Your task to perform on an android device: What's the news in Argentina? Image 0: 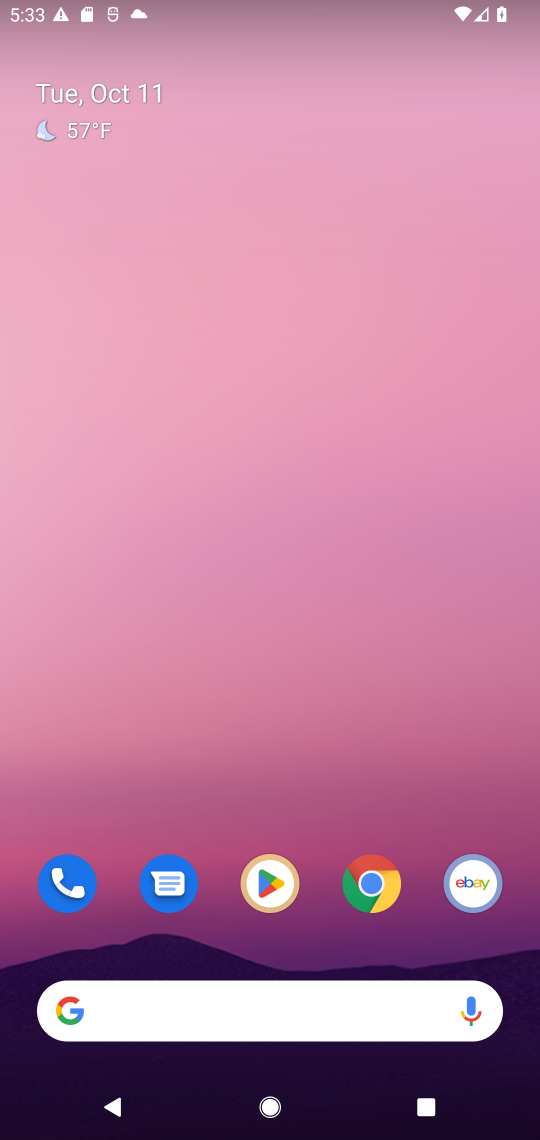
Step 0: drag from (329, 876) to (345, 75)
Your task to perform on an android device: What's the news in Argentina? Image 1: 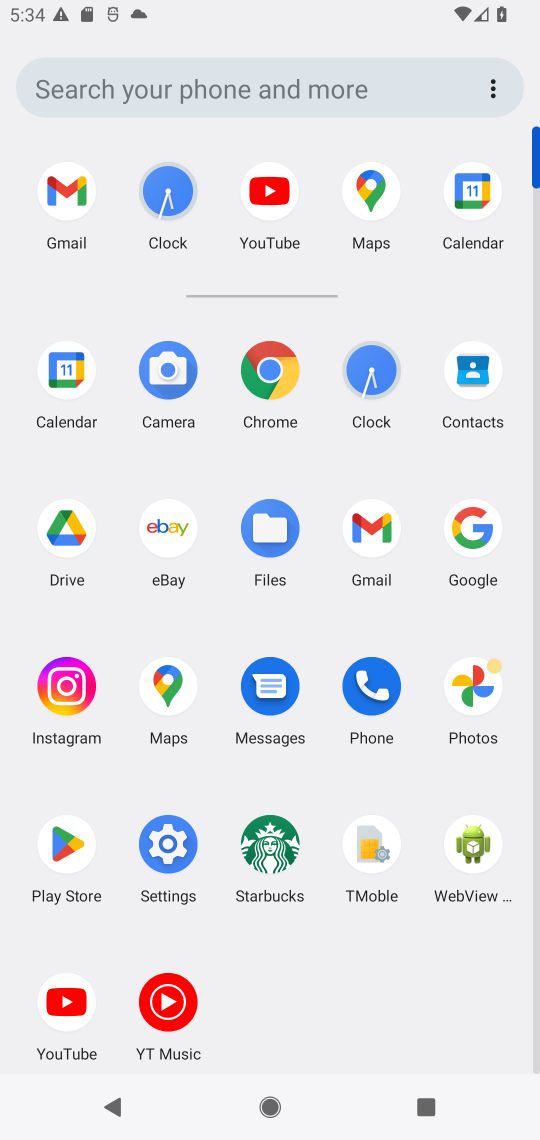
Step 1: click (269, 366)
Your task to perform on an android device: What's the news in Argentina? Image 2: 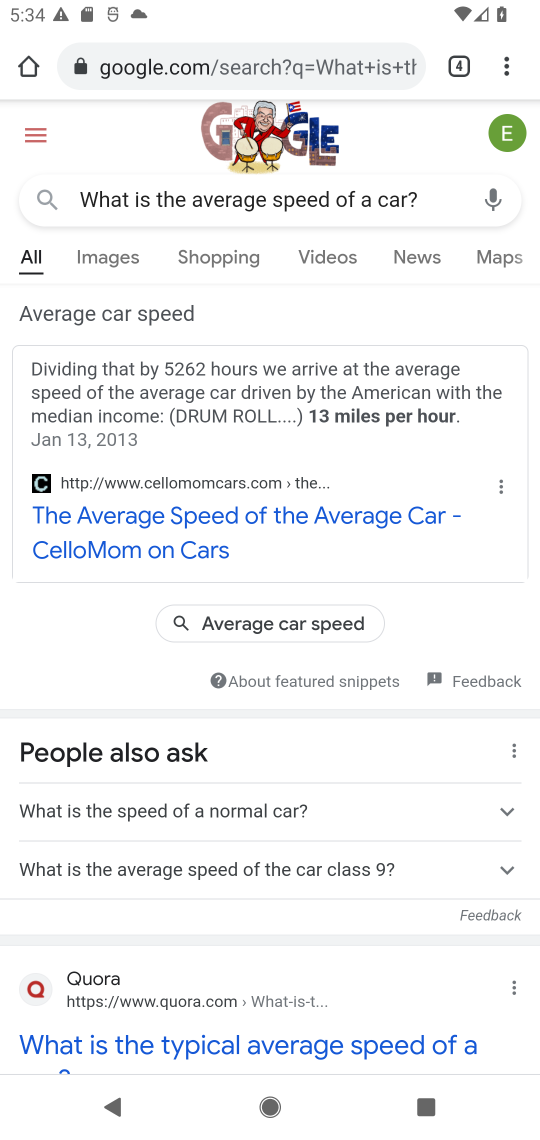
Step 2: click (335, 56)
Your task to perform on an android device: What's the news in Argentina? Image 3: 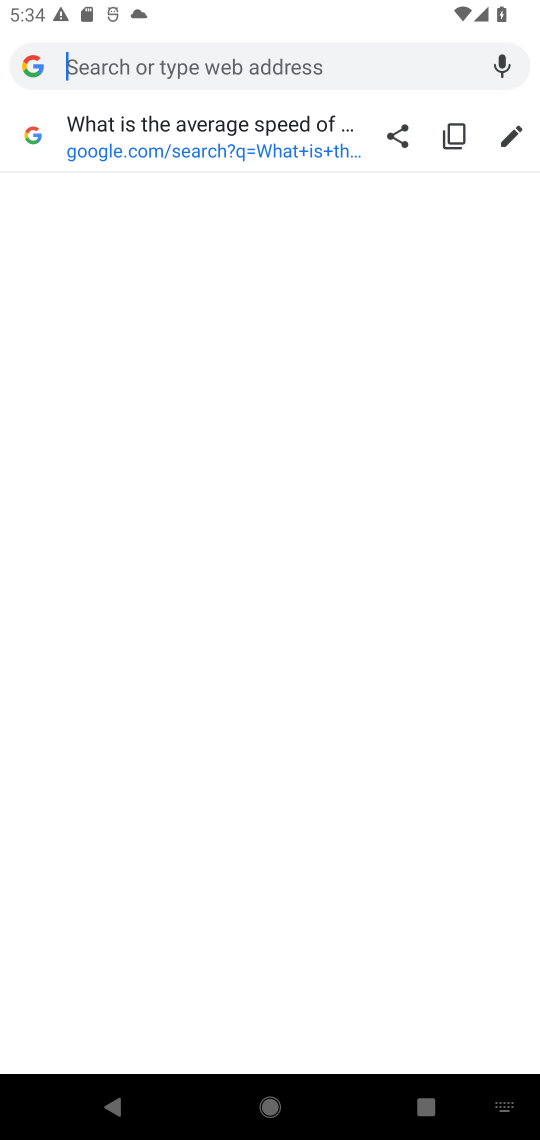
Step 3: type "What's the news in Argentina?"
Your task to perform on an android device: What's the news in Argentina? Image 4: 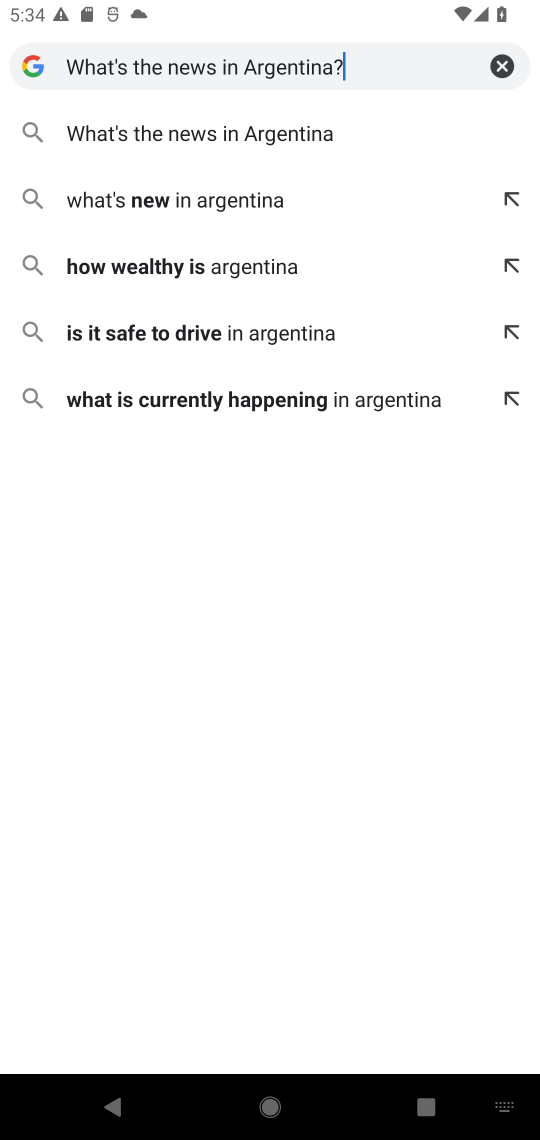
Step 4: press enter
Your task to perform on an android device: What's the news in Argentina? Image 5: 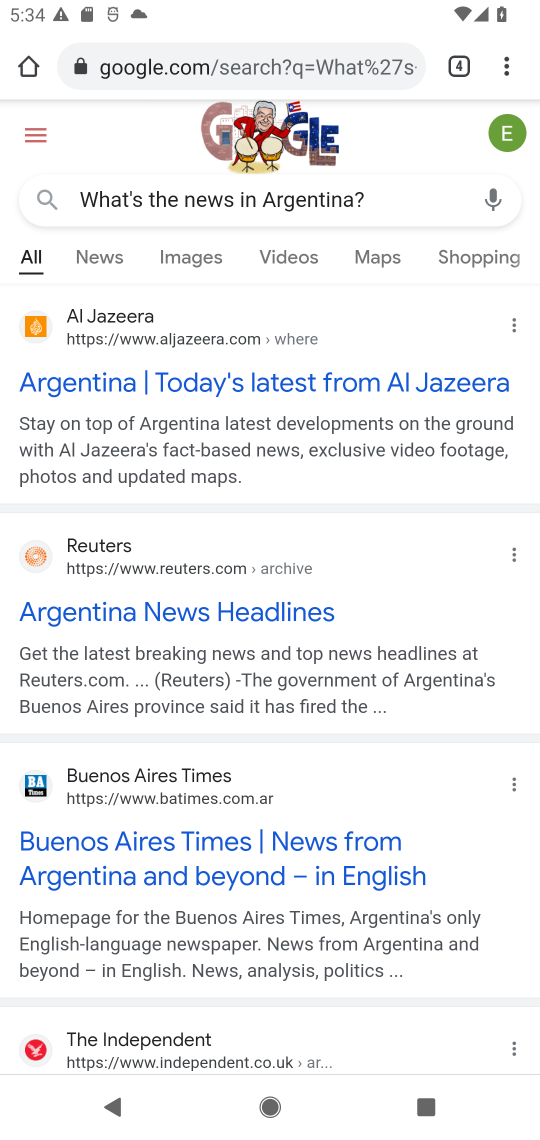
Step 5: click (367, 371)
Your task to perform on an android device: What's the news in Argentina? Image 6: 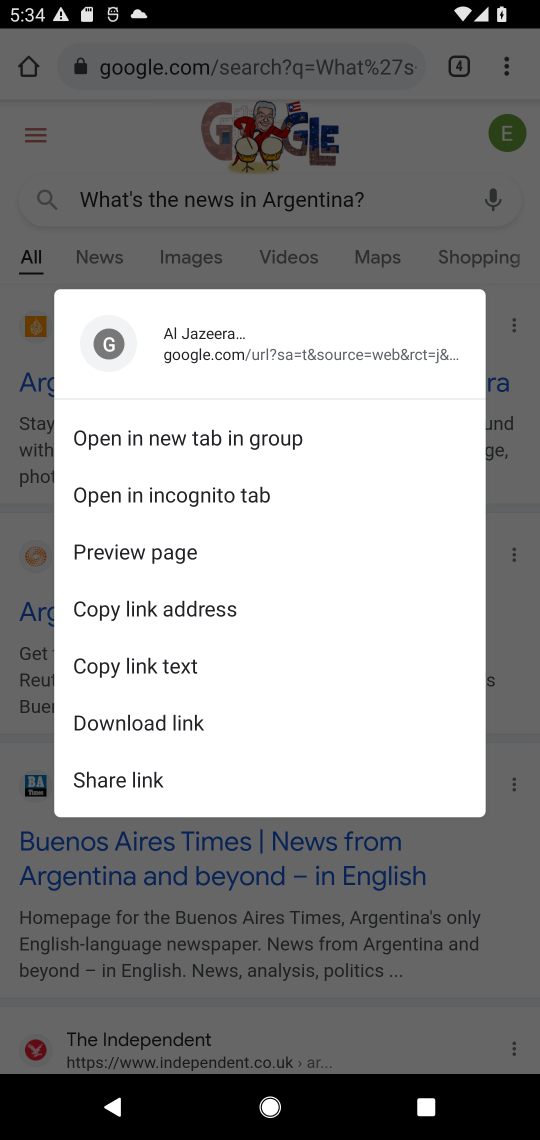
Step 6: click (326, 283)
Your task to perform on an android device: What's the news in Argentina? Image 7: 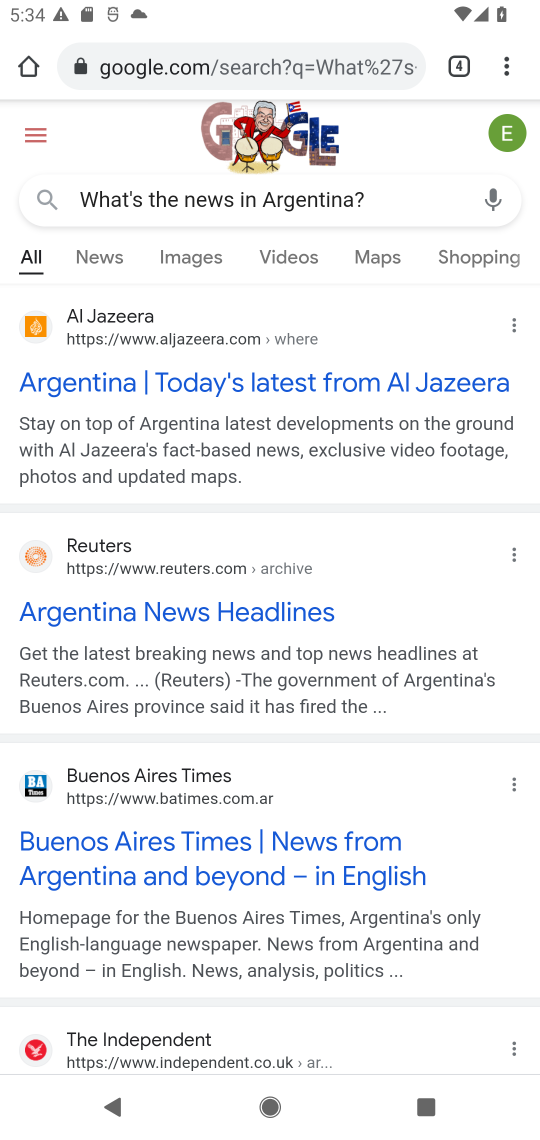
Step 7: click (184, 389)
Your task to perform on an android device: What's the news in Argentina? Image 8: 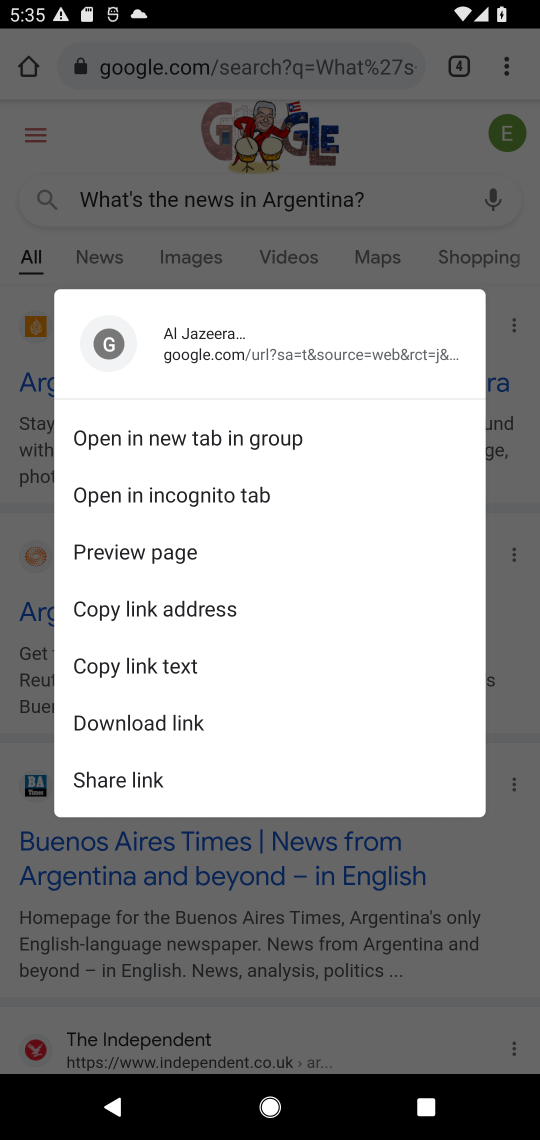
Step 8: click (182, 237)
Your task to perform on an android device: What's the news in Argentina? Image 9: 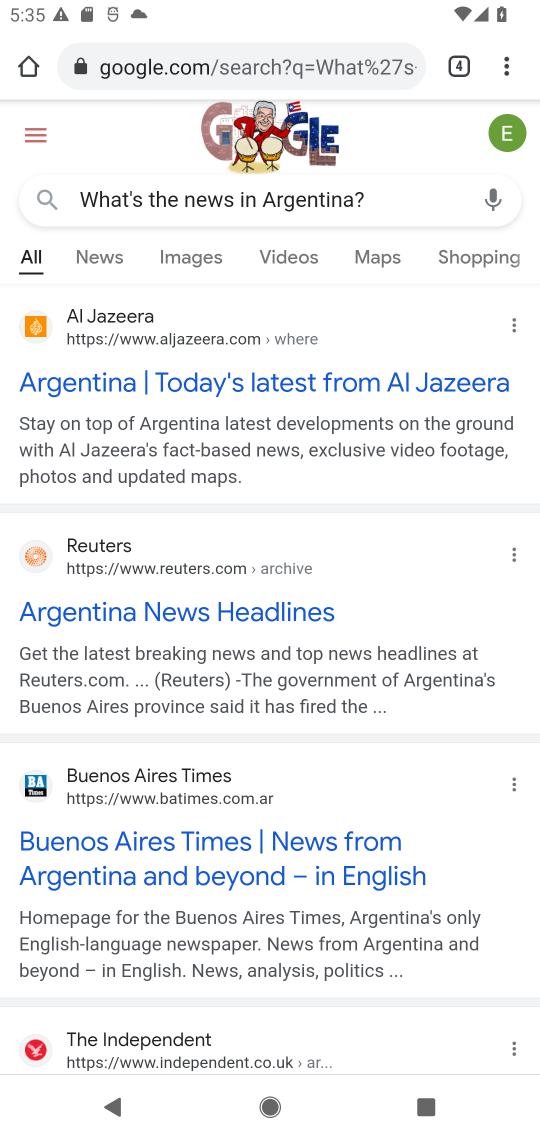
Step 9: click (42, 385)
Your task to perform on an android device: What's the news in Argentina? Image 10: 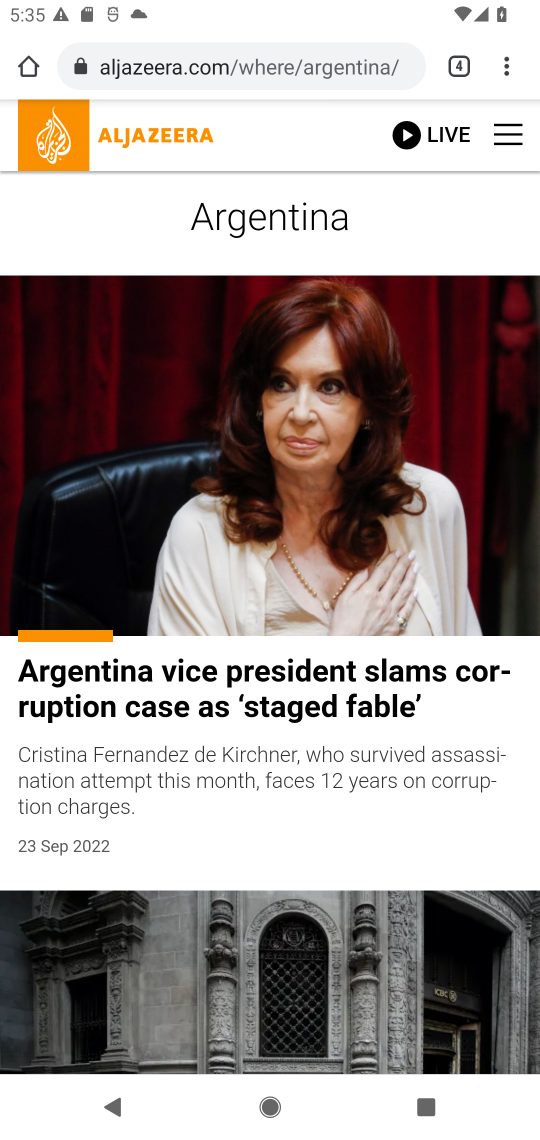
Step 10: task complete